Your task to perform on an android device: search for starred emails in the gmail app Image 0: 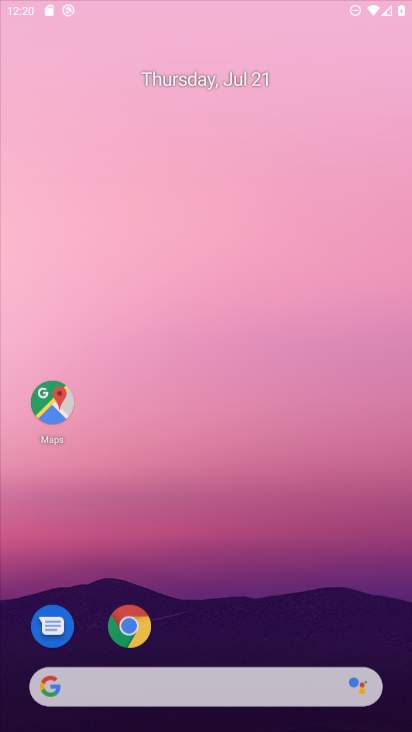
Step 0: drag from (231, 643) to (313, 0)
Your task to perform on an android device: search for starred emails in the gmail app Image 1: 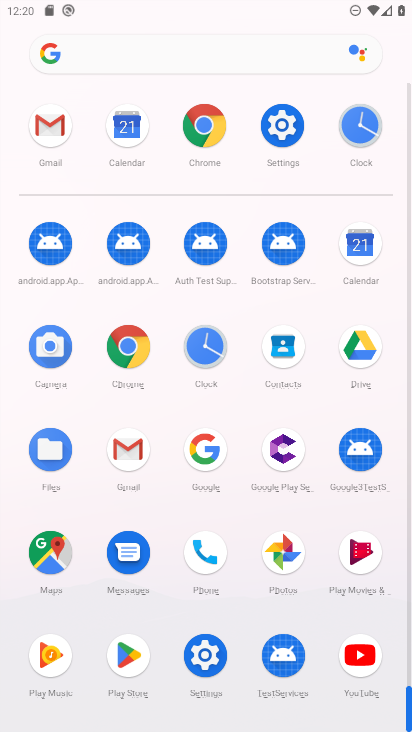
Step 1: click (138, 445)
Your task to perform on an android device: search for starred emails in the gmail app Image 2: 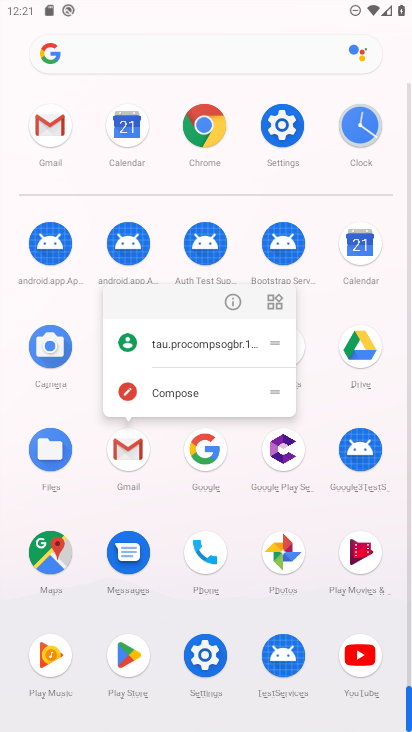
Step 2: click (229, 300)
Your task to perform on an android device: search for starred emails in the gmail app Image 3: 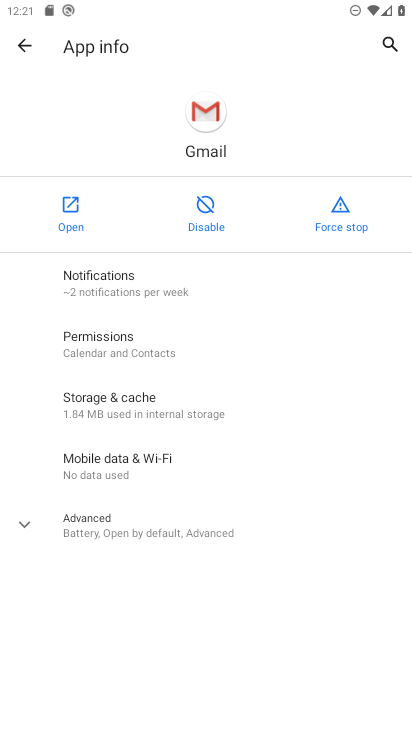
Step 3: click (78, 204)
Your task to perform on an android device: search for starred emails in the gmail app Image 4: 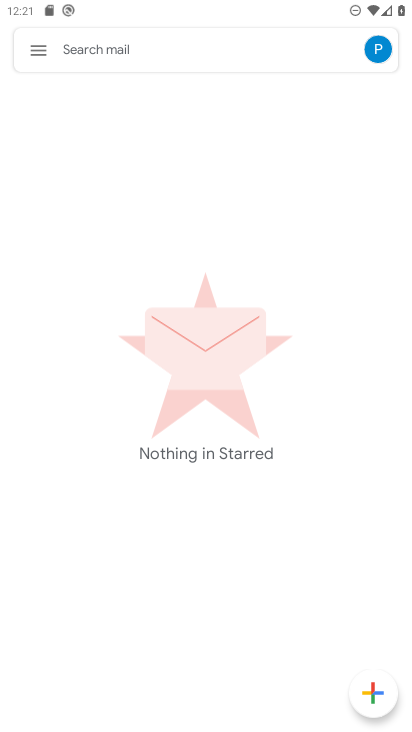
Step 4: click (32, 51)
Your task to perform on an android device: search for starred emails in the gmail app Image 5: 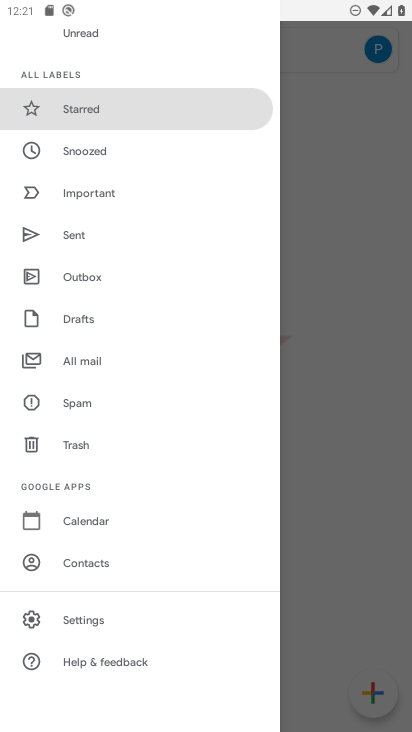
Step 5: click (80, 112)
Your task to perform on an android device: search for starred emails in the gmail app Image 6: 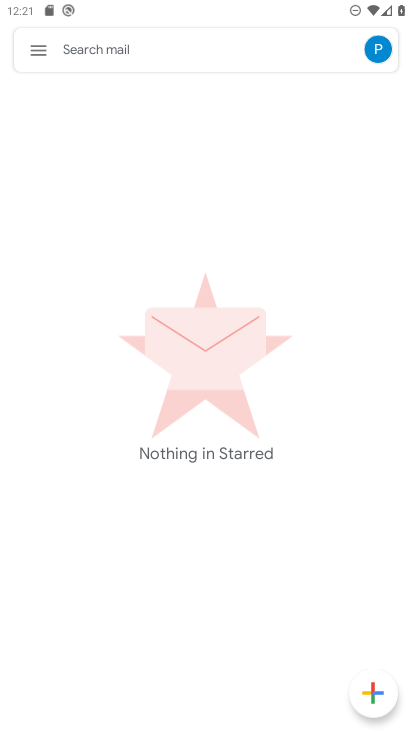
Step 6: click (339, 272)
Your task to perform on an android device: search for starred emails in the gmail app Image 7: 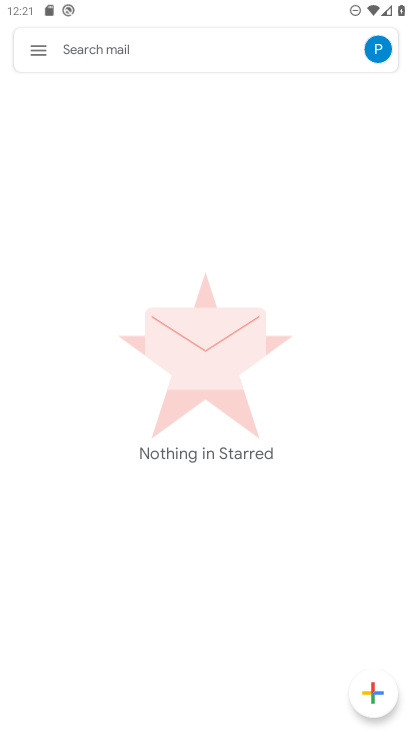
Step 7: click (234, 394)
Your task to perform on an android device: search for starred emails in the gmail app Image 8: 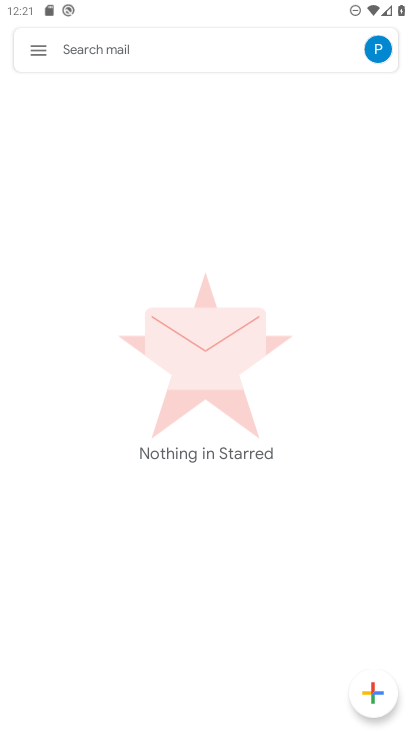
Step 8: task complete